Your task to perform on an android device: Search for Italian restaurants on Maps Image 0: 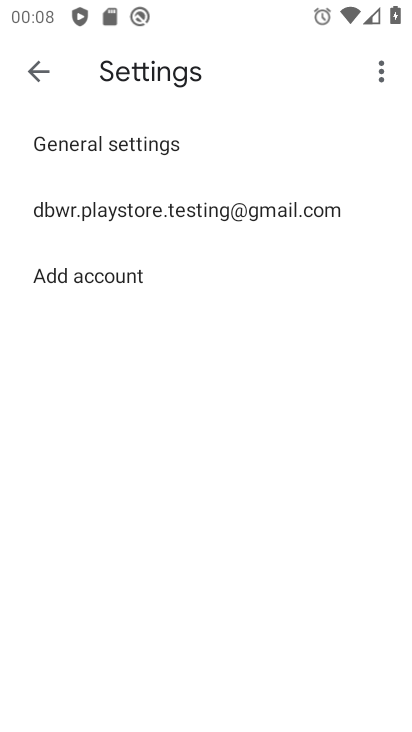
Step 0: press home button
Your task to perform on an android device: Search for Italian restaurants on Maps Image 1: 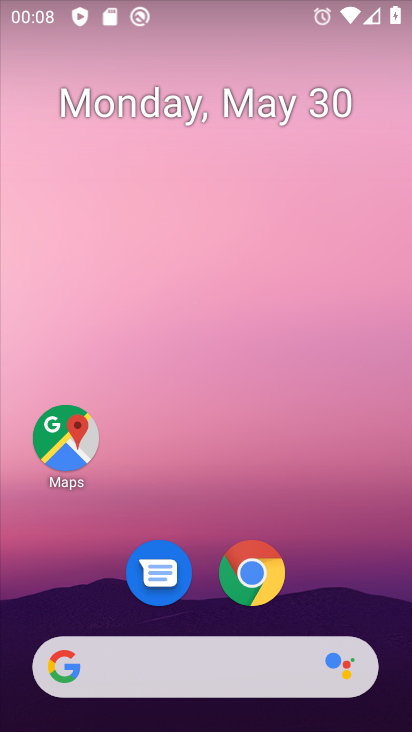
Step 1: drag from (305, 413) to (244, 4)
Your task to perform on an android device: Search for Italian restaurants on Maps Image 2: 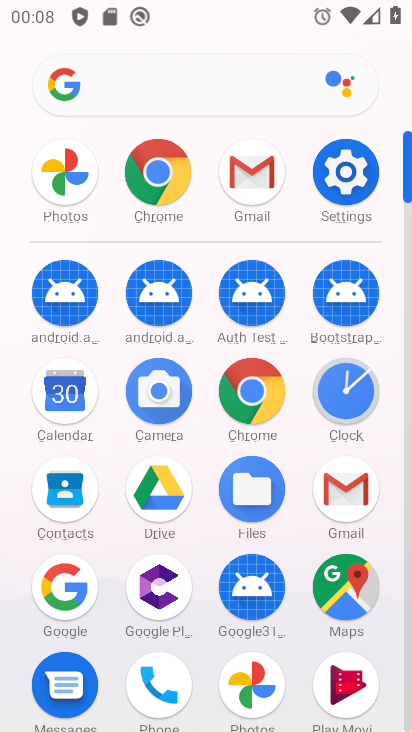
Step 2: click (354, 597)
Your task to perform on an android device: Search for Italian restaurants on Maps Image 3: 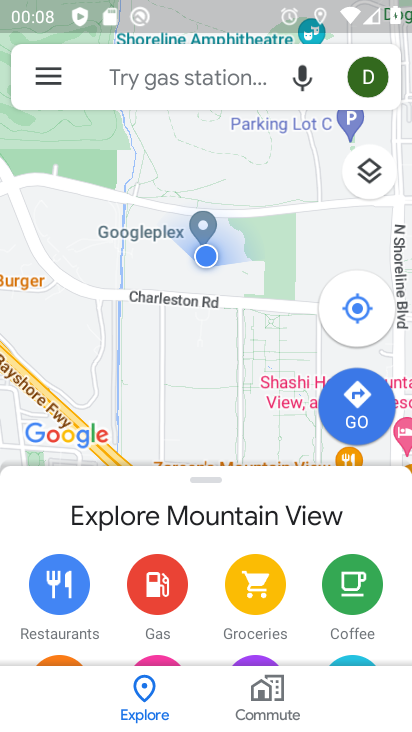
Step 3: click (182, 81)
Your task to perform on an android device: Search for Italian restaurants on Maps Image 4: 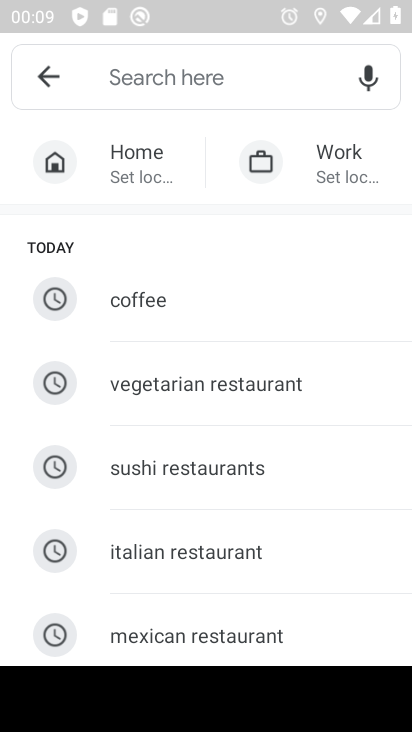
Step 4: click (195, 549)
Your task to perform on an android device: Search for Italian restaurants on Maps Image 5: 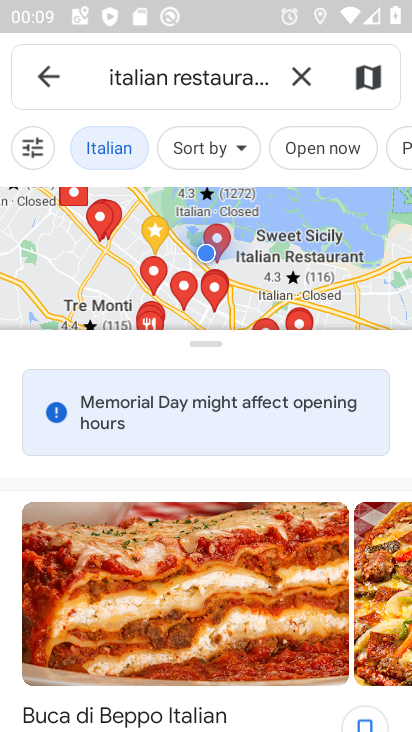
Step 5: task complete